Your task to perform on an android device: change text size in settings app Image 0: 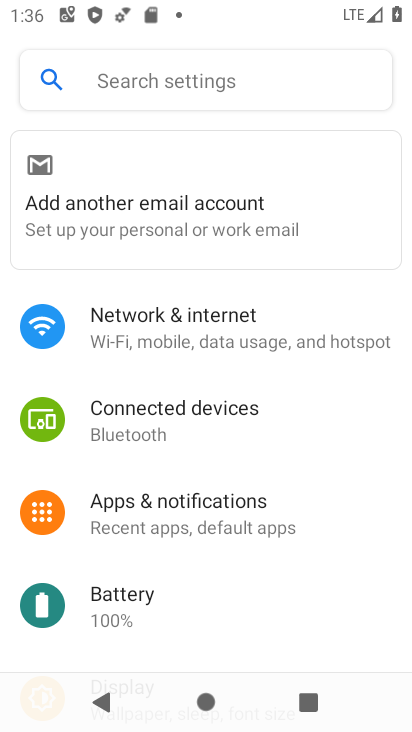
Step 0: press home button
Your task to perform on an android device: change text size in settings app Image 1: 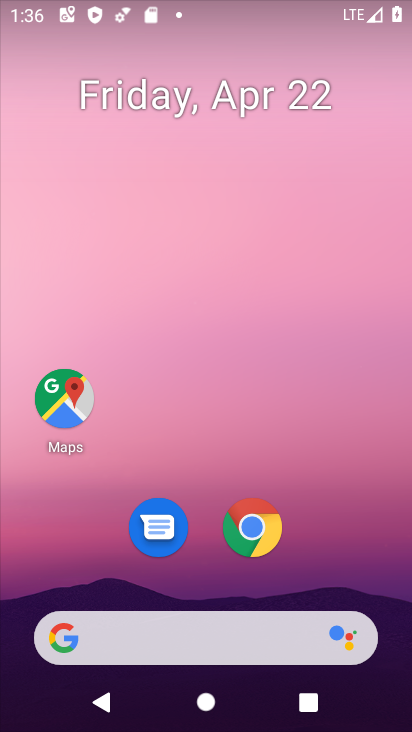
Step 1: drag from (337, 510) to (319, 134)
Your task to perform on an android device: change text size in settings app Image 2: 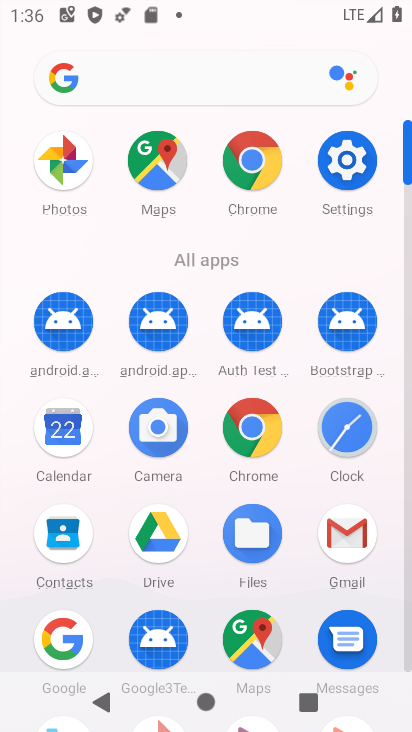
Step 2: click (349, 174)
Your task to perform on an android device: change text size in settings app Image 3: 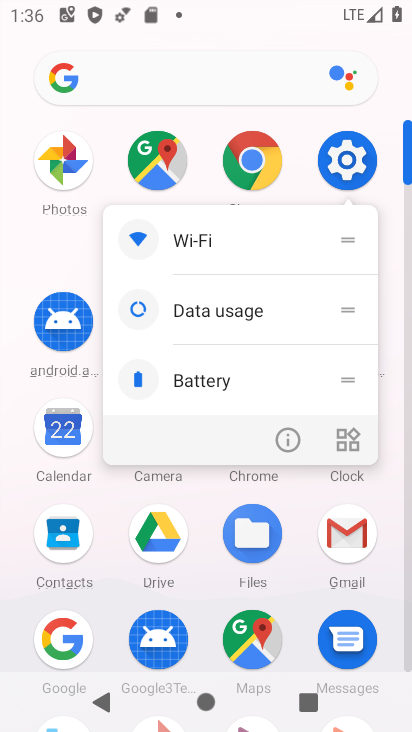
Step 3: click (346, 172)
Your task to perform on an android device: change text size in settings app Image 4: 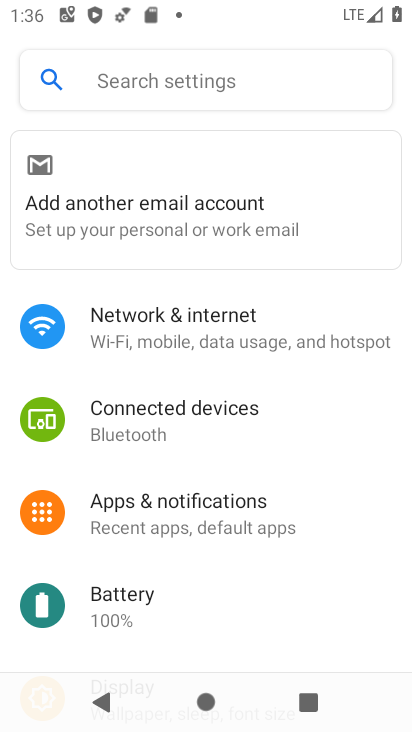
Step 4: drag from (209, 573) to (233, 159)
Your task to perform on an android device: change text size in settings app Image 5: 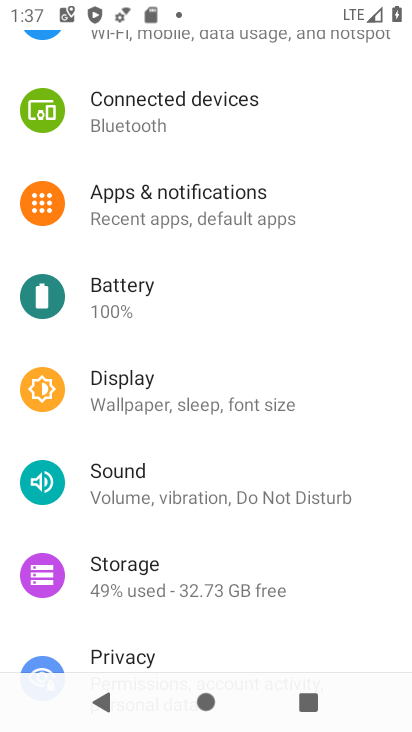
Step 5: drag from (225, 608) to (235, 190)
Your task to perform on an android device: change text size in settings app Image 6: 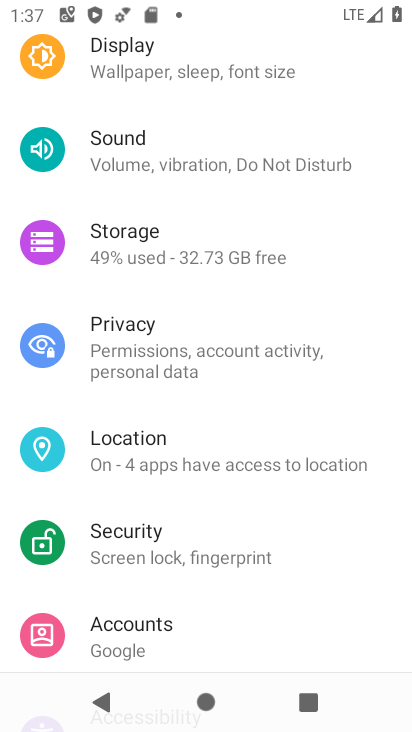
Step 6: drag from (247, 90) to (206, 336)
Your task to perform on an android device: change text size in settings app Image 7: 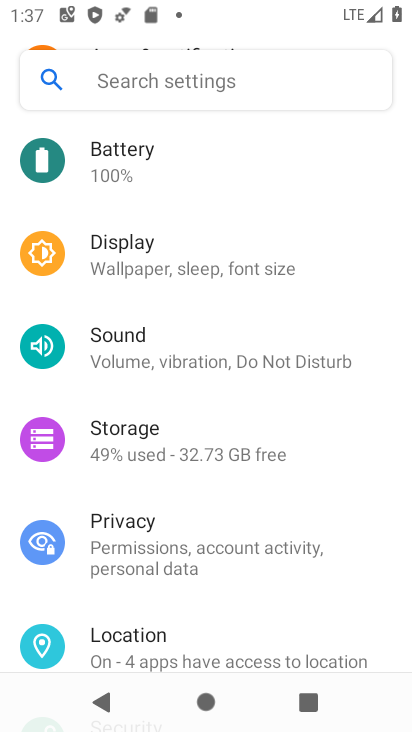
Step 7: click (211, 270)
Your task to perform on an android device: change text size in settings app Image 8: 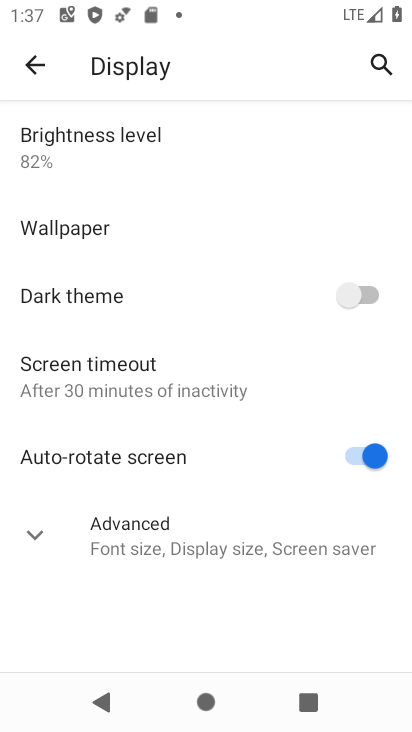
Step 8: click (233, 542)
Your task to perform on an android device: change text size in settings app Image 9: 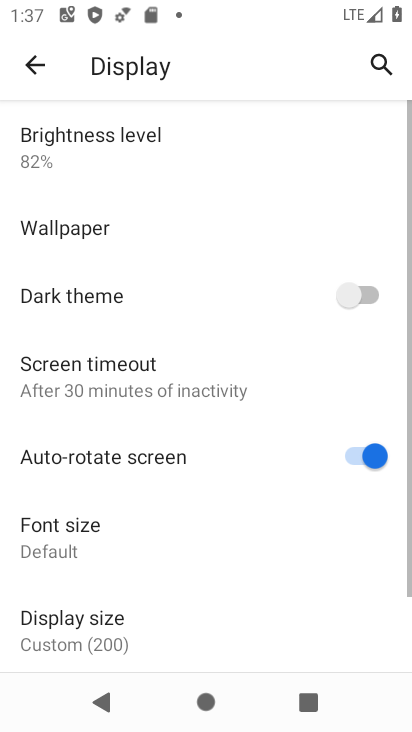
Step 9: drag from (187, 557) to (210, 246)
Your task to perform on an android device: change text size in settings app Image 10: 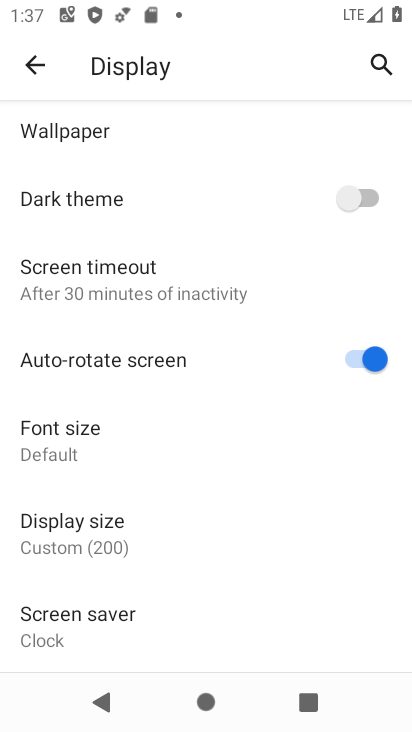
Step 10: click (105, 443)
Your task to perform on an android device: change text size in settings app Image 11: 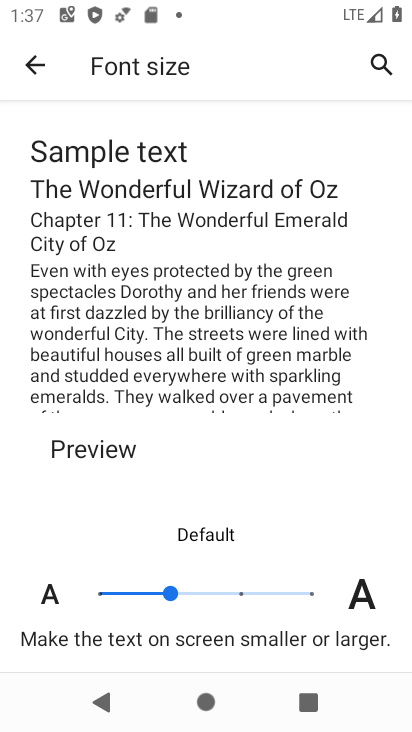
Step 11: click (99, 594)
Your task to perform on an android device: change text size in settings app Image 12: 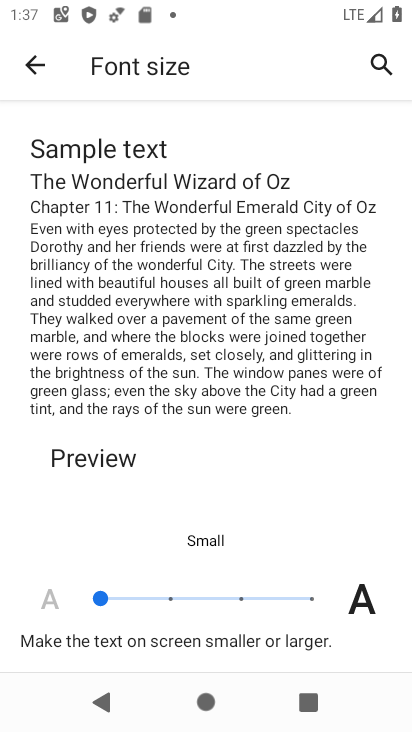
Step 12: task complete